Your task to perform on an android device: Open Android settings Image 0: 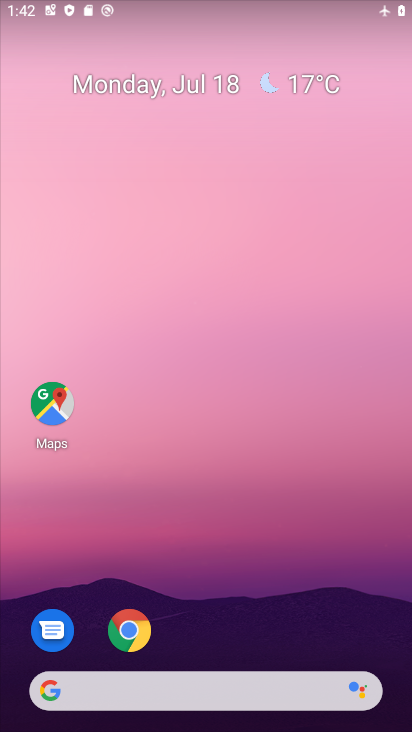
Step 0: drag from (253, 635) to (308, 45)
Your task to perform on an android device: Open Android settings Image 1: 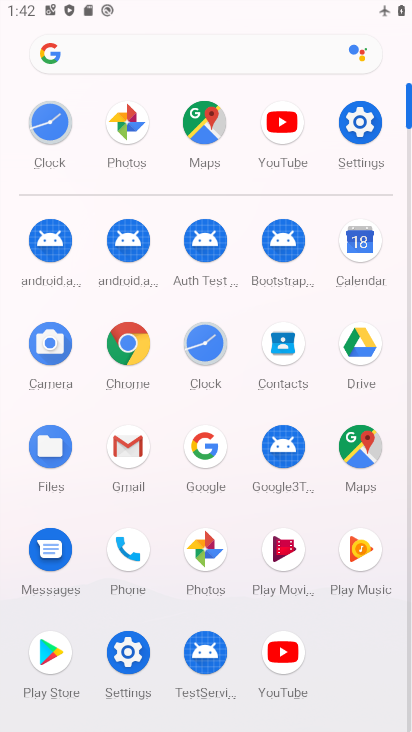
Step 1: click (357, 121)
Your task to perform on an android device: Open Android settings Image 2: 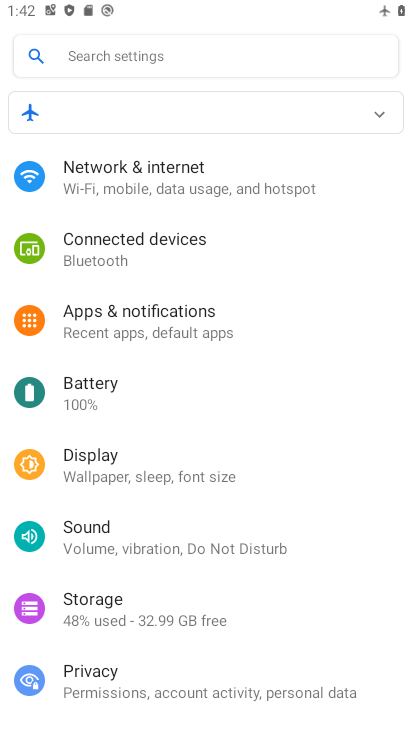
Step 2: drag from (263, 616) to (269, 32)
Your task to perform on an android device: Open Android settings Image 3: 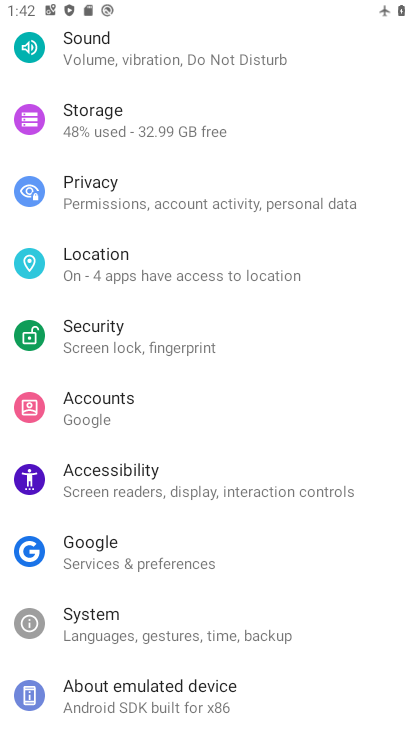
Step 3: click (188, 697)
Your task to perform on an android device: Open Android settings Image 4: 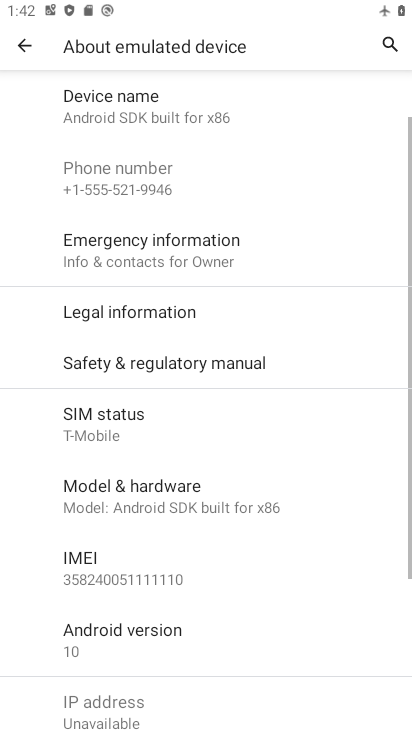
Step 4: task complete